Your task to perform on an android device: Search for "acer predator" on amazon.com, select the first entry, and add it to the cart. Image 0: 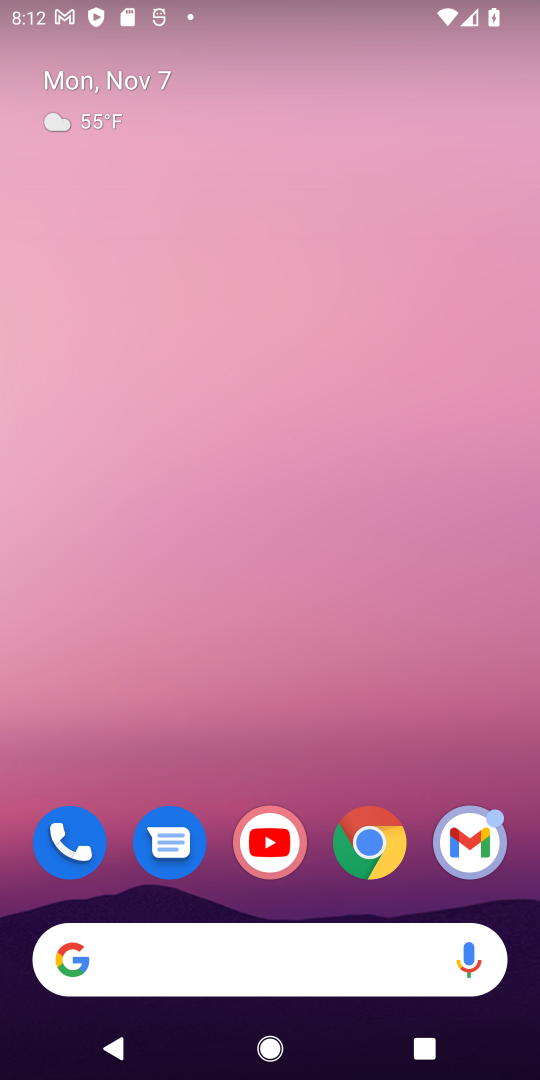
Step 0: click (364, 835)
Your task to perform on an android device: Search for "acer predator" on amazon.com, select the first entry, and add it to the cart. Image 1: 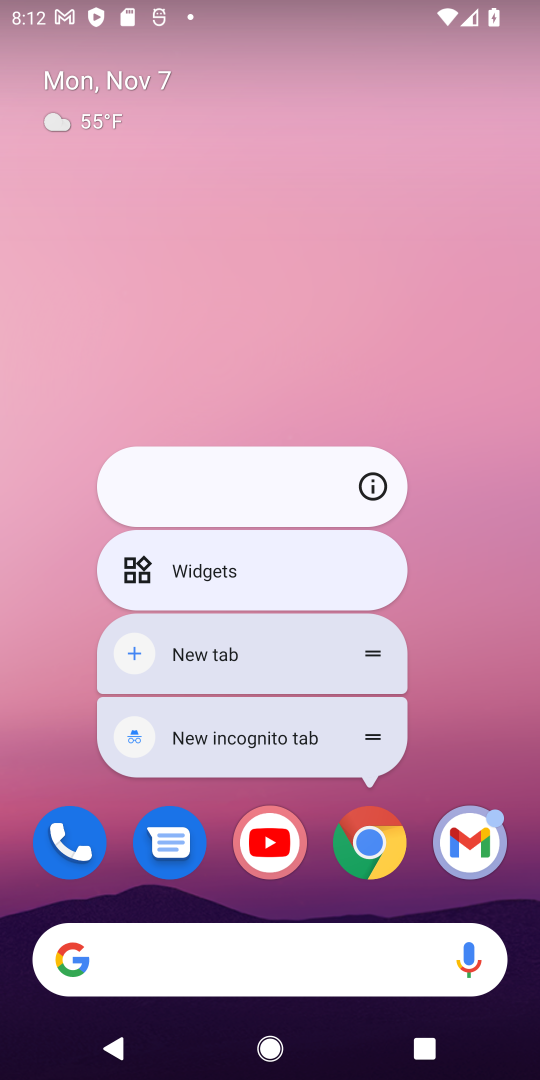
Step 1: click (364, 836)
Your task to perform on an android device: Search for "acer predator" on amazon.com, select the first entry, and add it to the cart. Image 2: 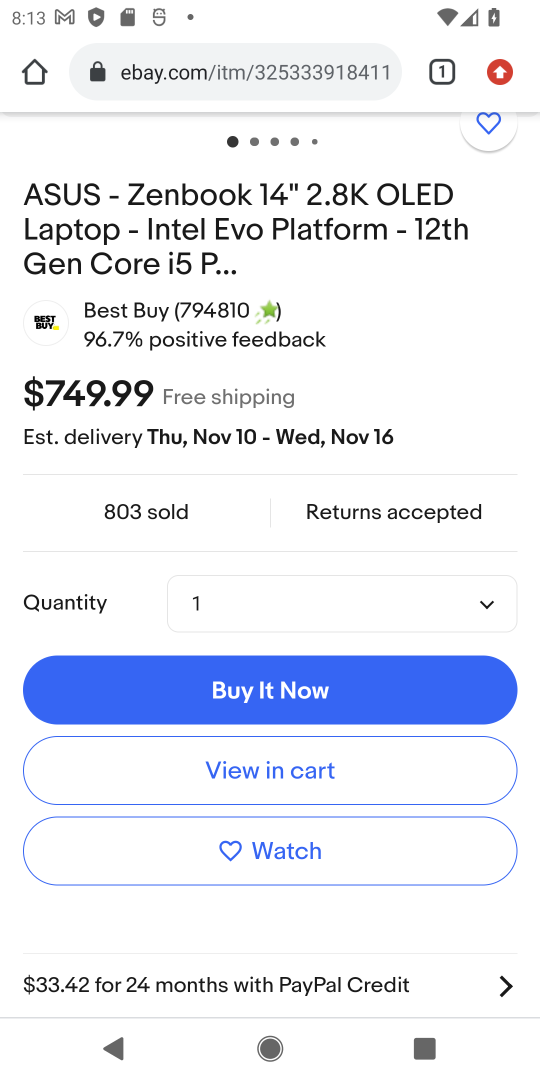
Step 2: click (164, 80)
Your task to perform on an android device: Search for "acer predator" on amazon.com, select the first entry, and add it to the cart. Image 3: 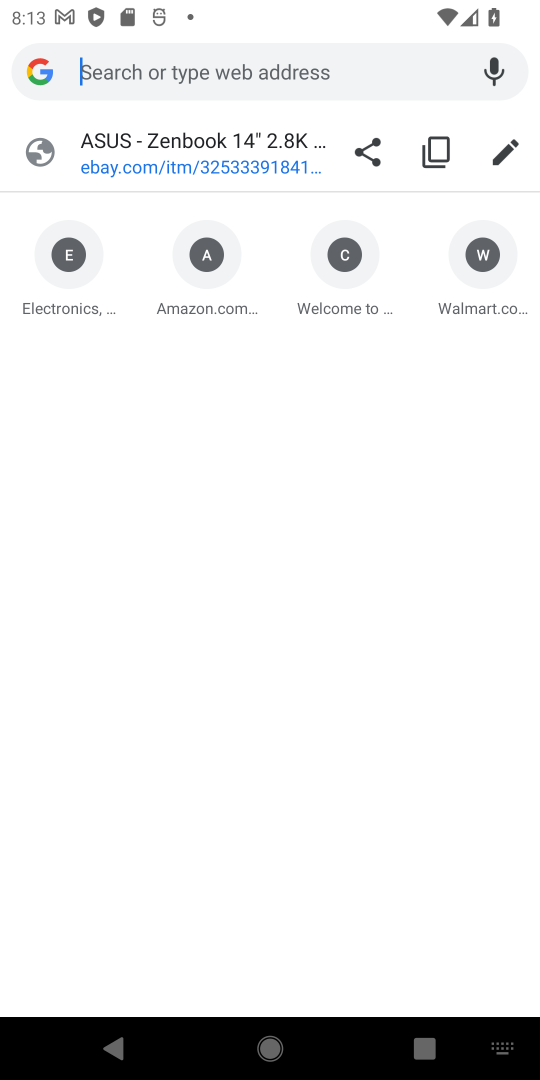
Step 3: click (216, 309)
Your task to perform on an android device: Search for "acer predator" on amazon.com, select the first entry, and add it to the cart. Image 4: 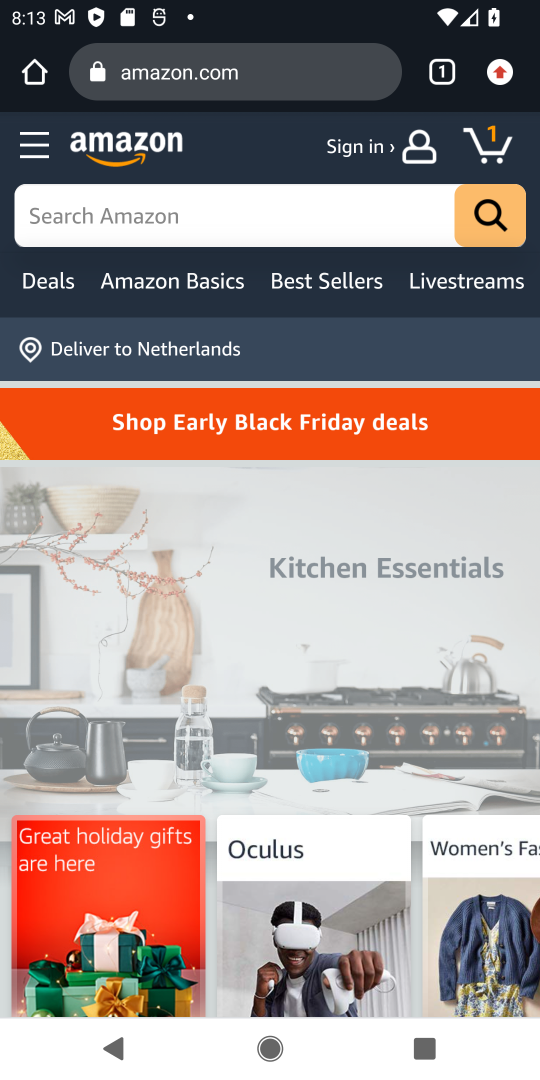
Step 4: click (102, 216)
Your task to perform on an android device: Search for "acer predator" on amazon.com, select the first entry, and add it to the cart. Image 5: 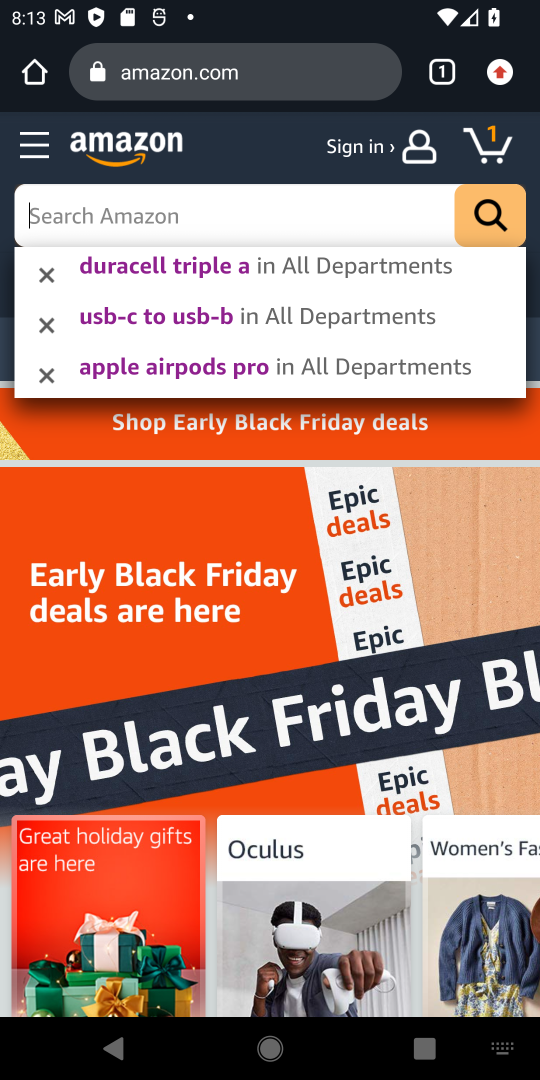
Step 5: press enter
Your task to perform on an android device: Search for "acer predator" on amazon.com, select the first entry, and add it to the cart. Image 6: 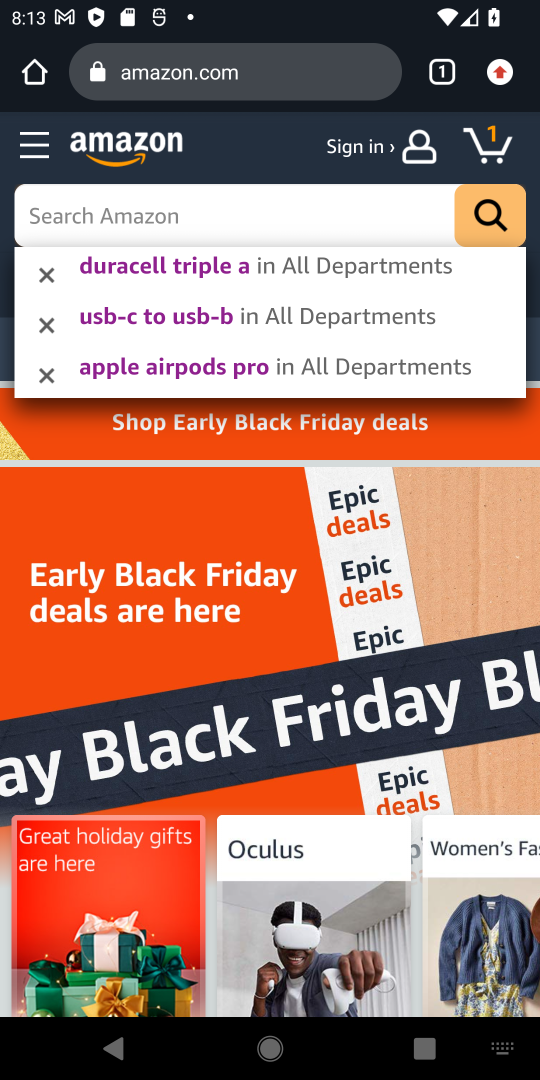
Step 6: type "acer predator"
Your task to perform on an android device: Search for "acer predator" on amazon.com, select the first entry, and add it to the cart. Image 7: 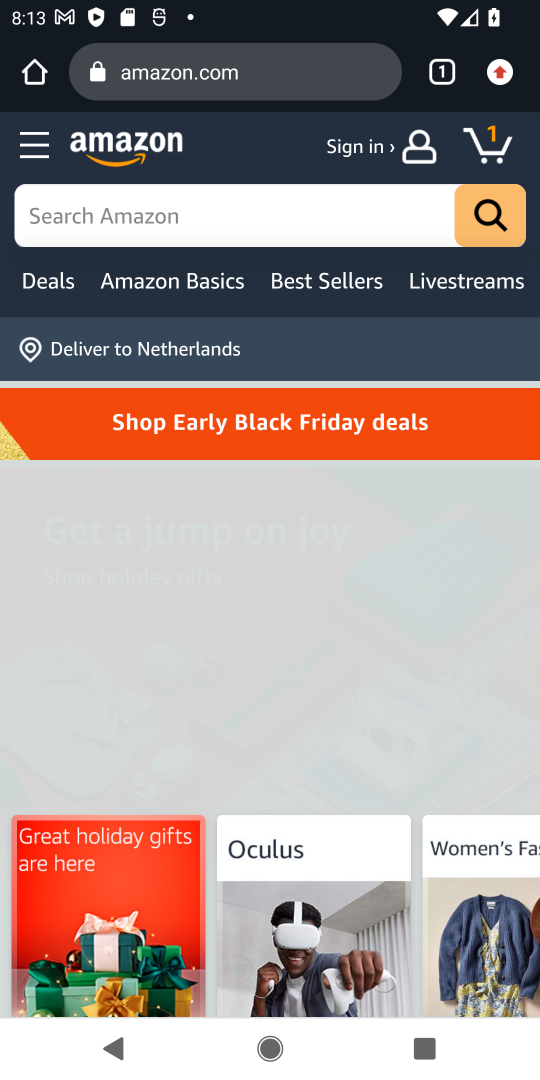
Step 7: click (113, 214)
Your task to perform on an android device: Search for "acer predator" on amazon.com, select the first entry, and add it to the cart. Image 8: 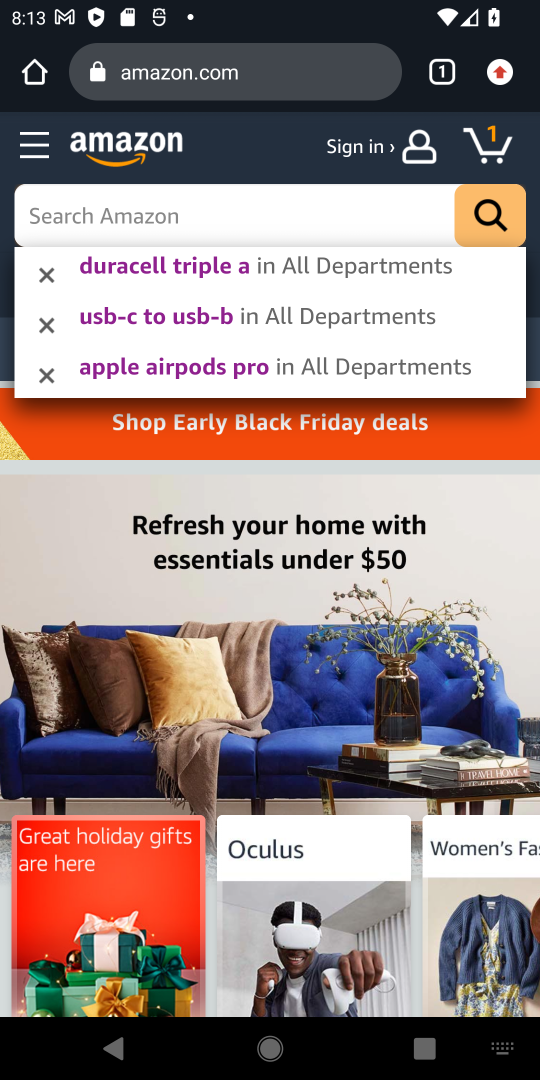
Step 8: type "acer predator"
Your task to perform on an android device: Search for "acer predator" on amazon.com, select the first entry, and add it to the cart. Image 9: 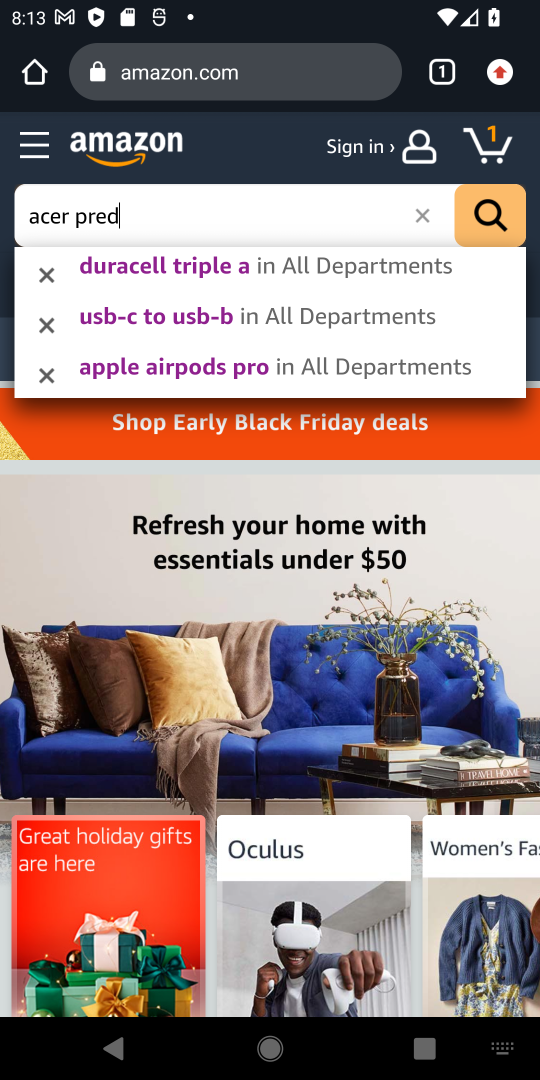
Step 9: press enter
Your task to perform on an android device: Search for "acer predator" on amazon.com, select the first entry, and add it to the cart. Image 10: 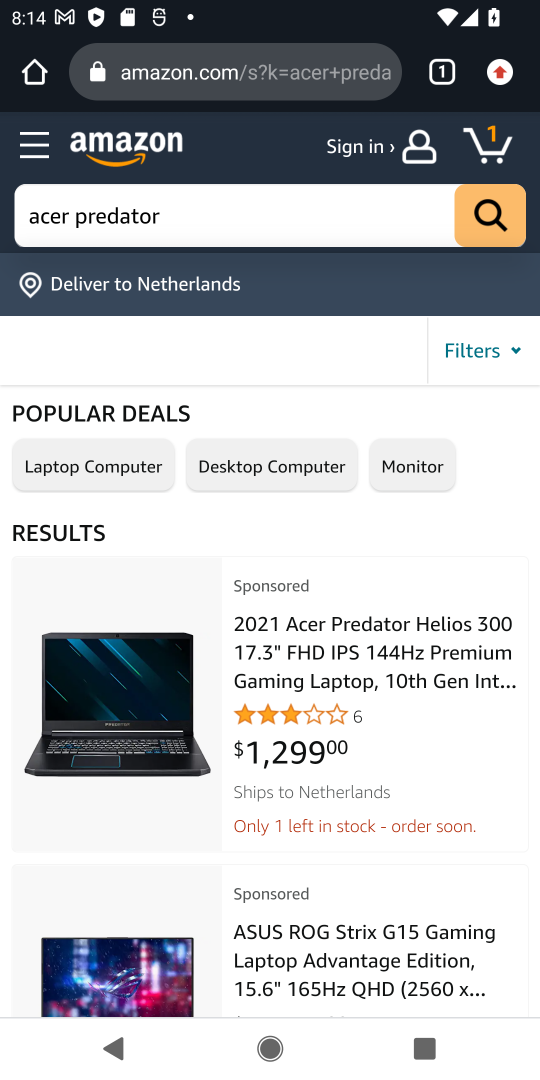
Step 10: click (374, 662)
Your task to perform on an android device: Search for "acer predator" on amazon.com, select the first entry, and add it to the cart. Image 11: 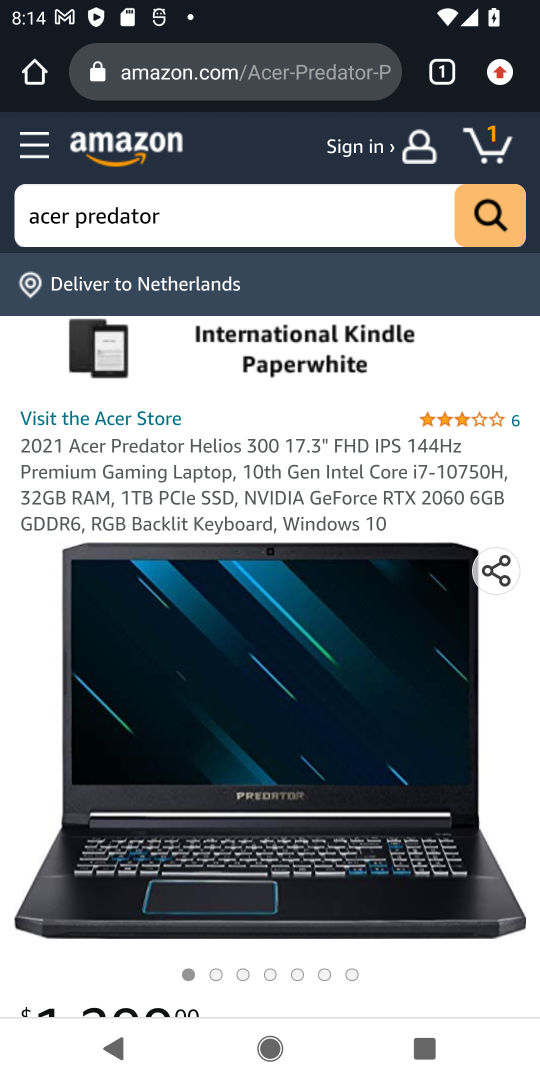
Step 11: drag from (218, 952) to (376, 224)
Your task to perform on an android device: Search for "acer predator" on amazon.com, select the first entry, and add it to the cart. Image 12: 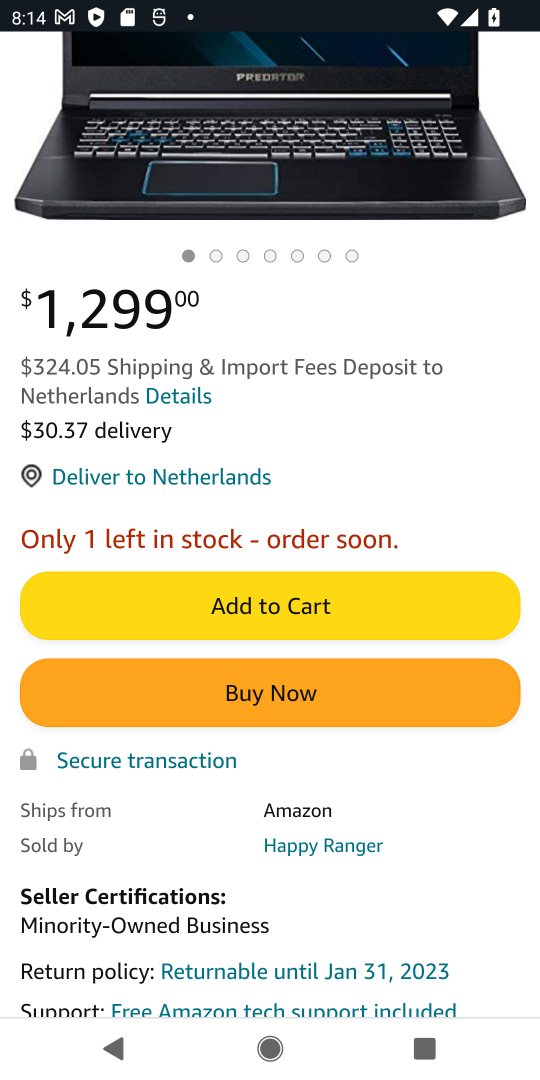
Step 12: click (269, 606)
Your task to perform on an android device: Search for "acer predator" on amazon.com, select the first entry, and add it to the cart. Image 13: 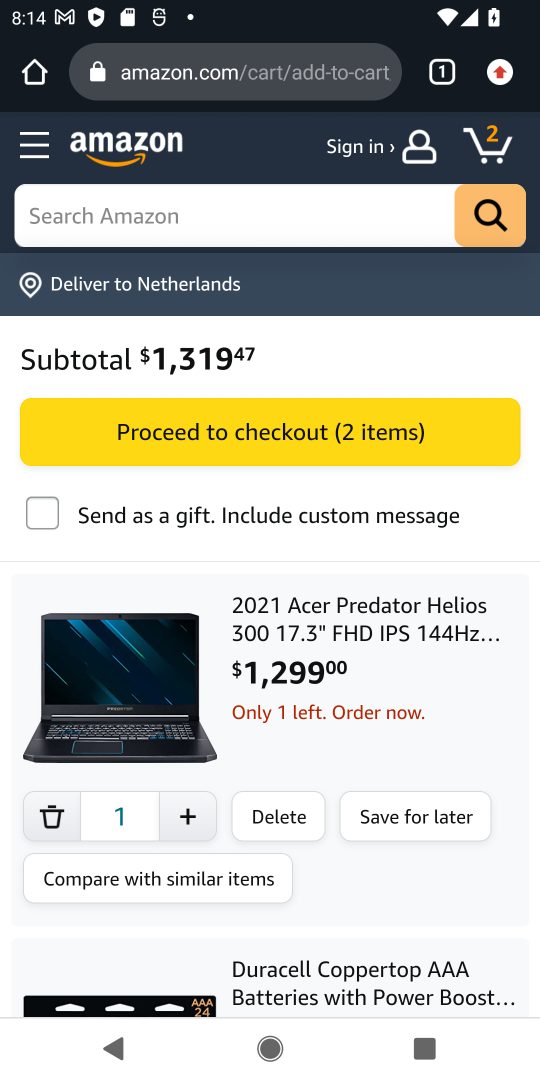
Step 13: task complete